Your task to perform on an android device: all mails in gmail Image 0: 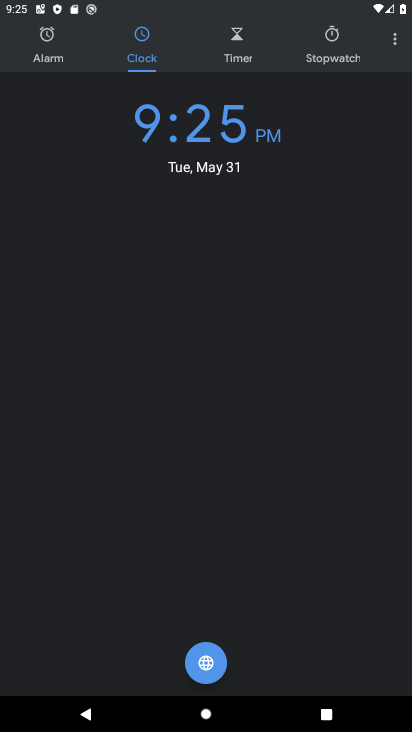
Step 0: press home button
Your task to perform on an android device: all mails in gmail Image 1: 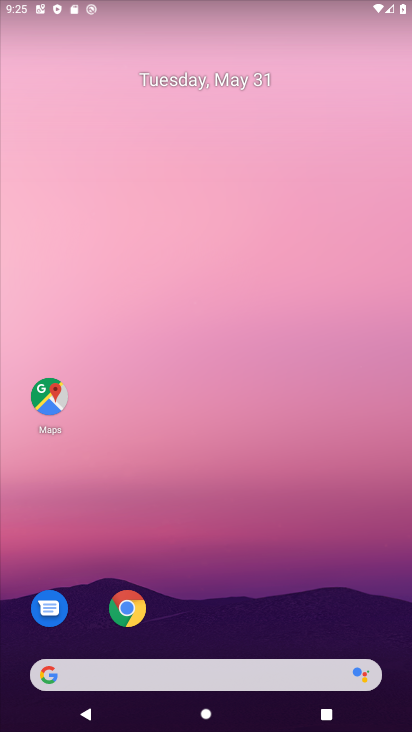
Step 1: drag from (310, 621) to (347, 109)
Your task to perform on an android device: all mails in gmail Image 2: 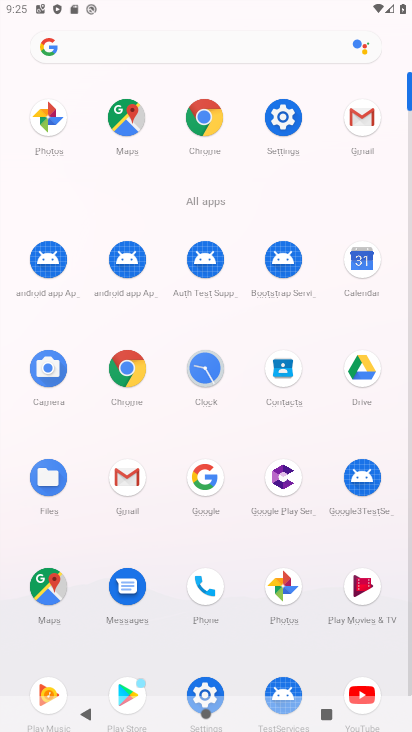
Step 2: click (349, 134)
Your task to perform on an android device: all mails in gmail Image 3: 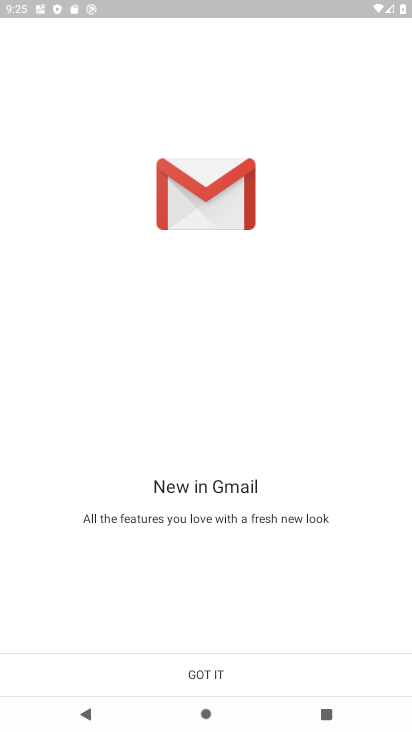
Step 3: click (224, 666)
Your task to perform on an android device: all mails in gmail Image 4: 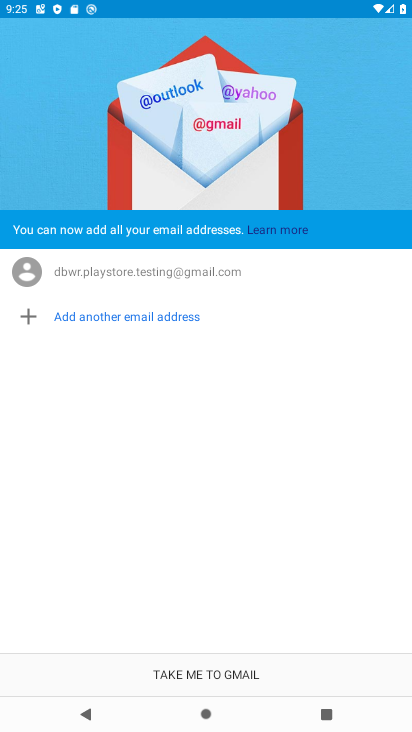
Step 4: click (224, 666)
Your task to perform on an android device: all mails in gmail Image 5: 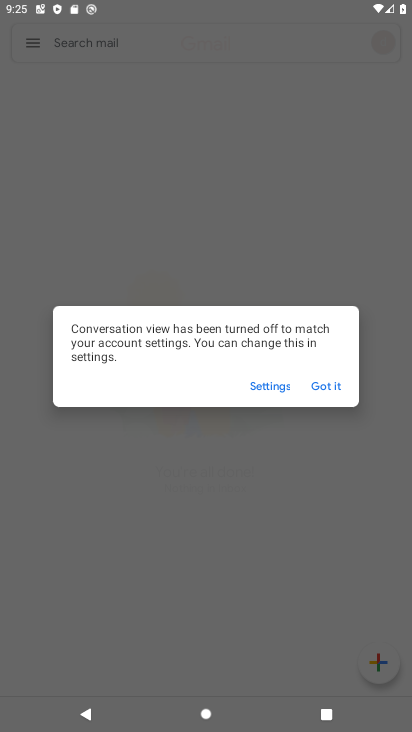
Step 5: click (310, 393)
Your task to perform on an android device: all mails in gmail Image 6: 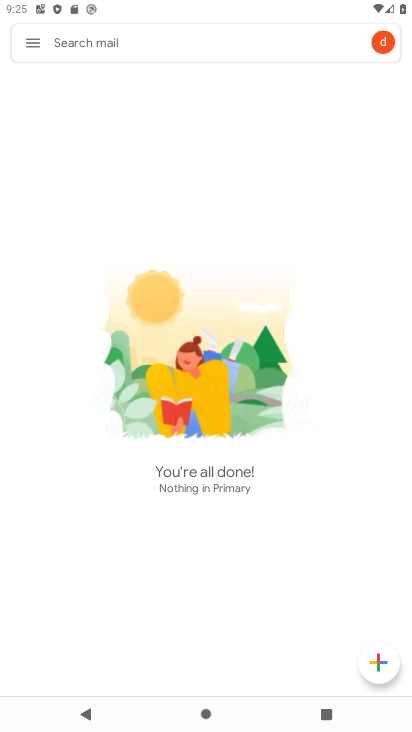
Step 6: task complete